Your task to perform on an android device: set the timer Image 0: 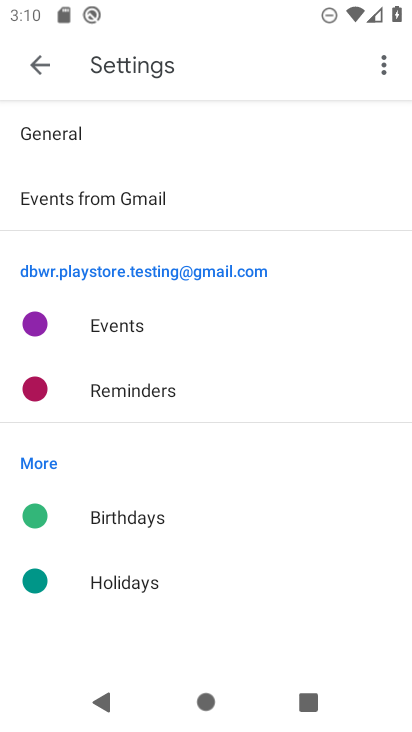
Step 0: press back button
Your task to perform on an android device: set the timer Image 1: 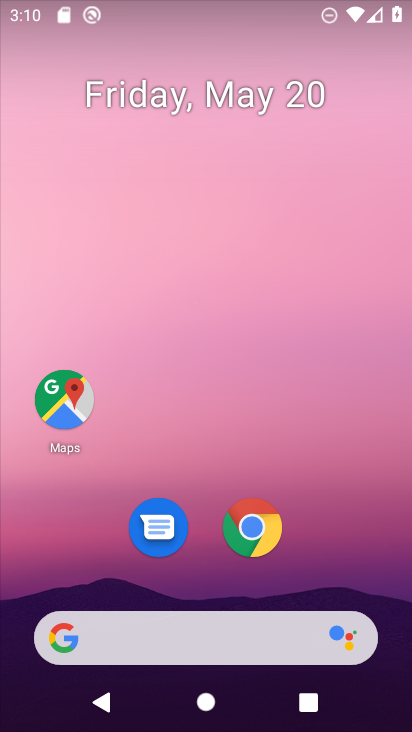
Step 1: drag from (216, 515) to (281, 75)
Your task to perform on an android device: set the timer Image 2: 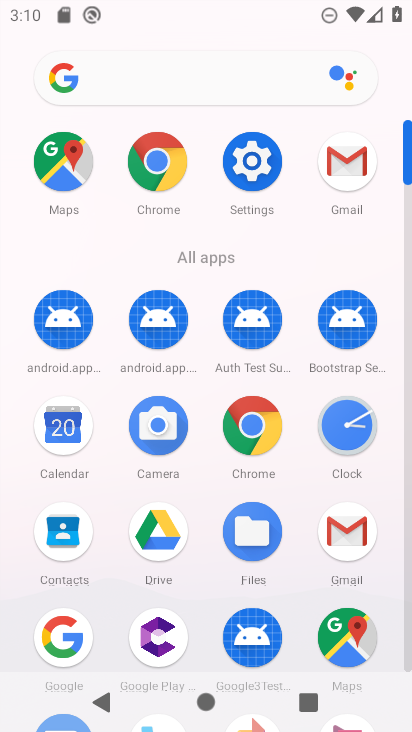
Step 2: click (353, 442)
Your task to perform on an android device: set the timer Image 3: 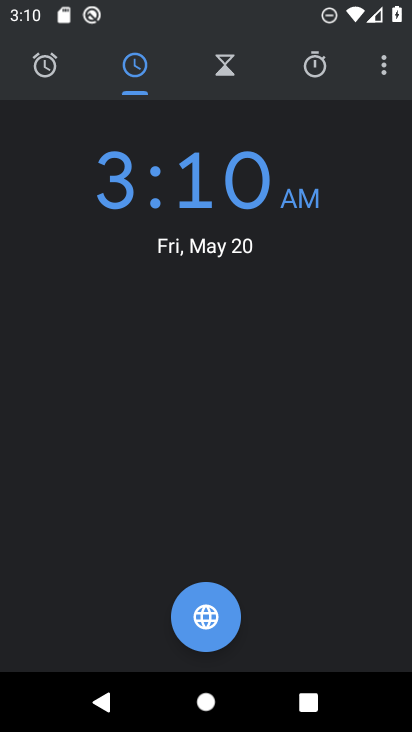
Step 3: click (317, 63)
Your task to perform on an android device: set the timer Image 4: 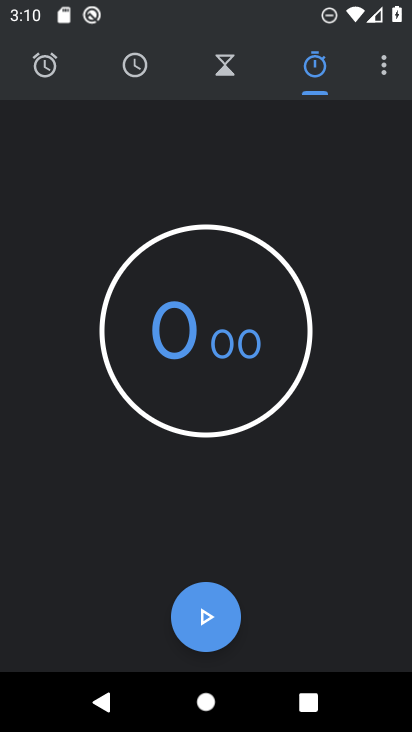
Step 4: click (233, 335)
Your task to perform on an android device: set the timer Image 5: 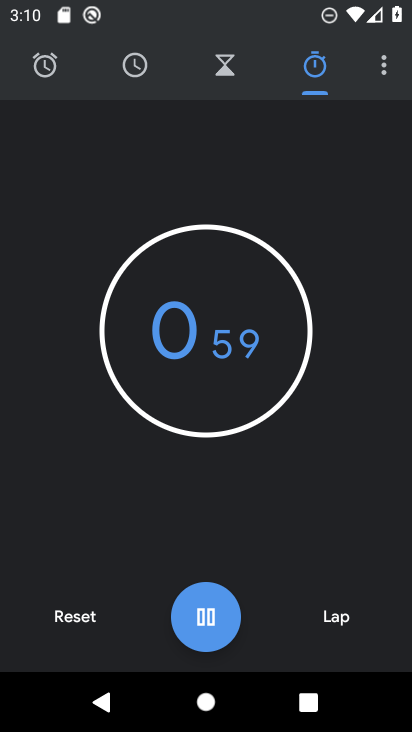
Step 5: click (195, 316)
Your task to perform on an android device: set the timer Image 6: 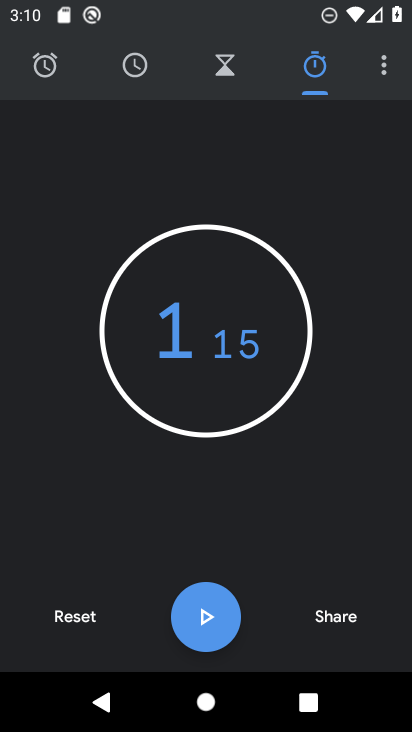
Step 6: click (230, 46)
Your task to perform on an android device: set the timer Image 7: 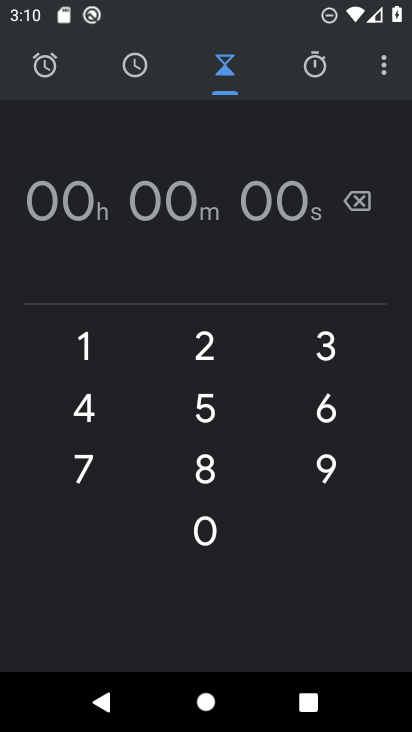
Step 7: click (200, 370)
Your task to perform on an android device: set the timer Image 8: 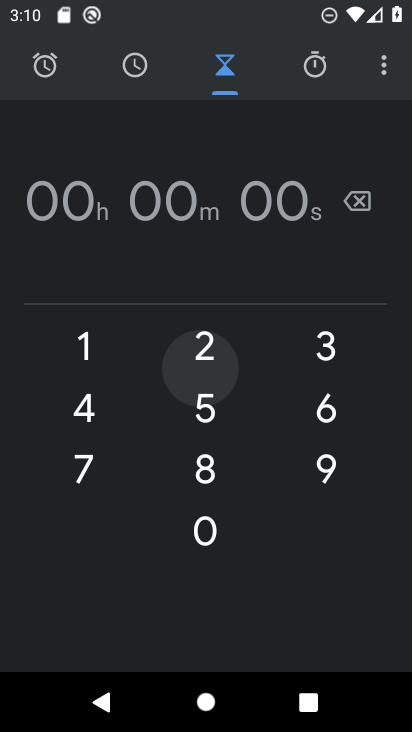
Step 8: drag from (205, 339) to (343, 339)
Your task to perform on an android device: set the timer Image 9: 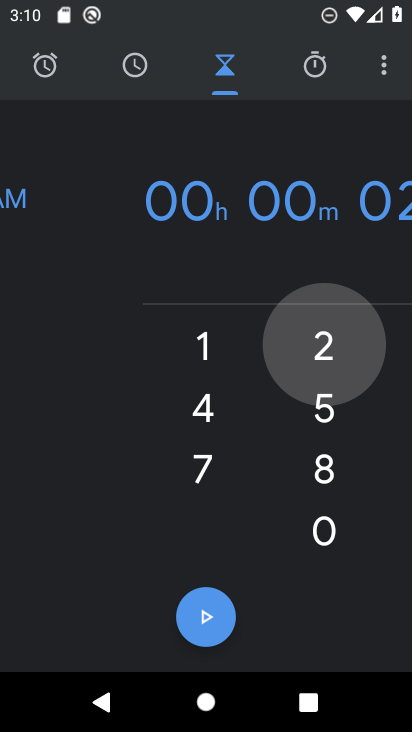
Step 9: click (236, 394)
Your task to perform on an android device: set the timer Image 10: 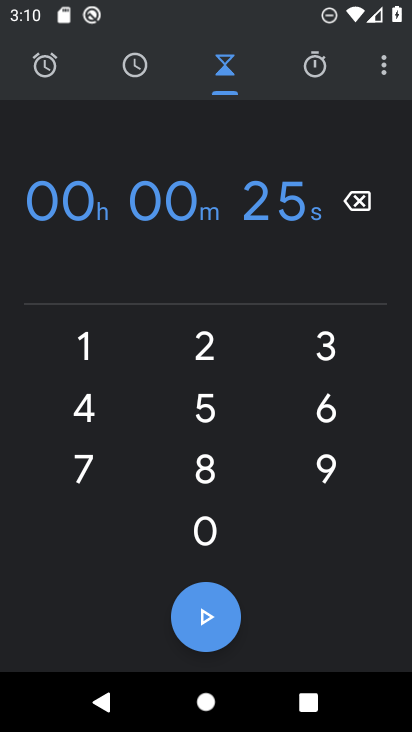
Step 10: task complete